Your task to perform on an android device: What's the weather today? Image 0: 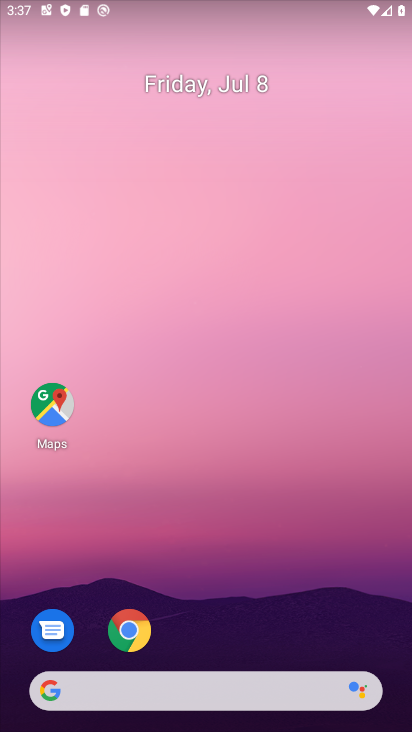
Step 0: click (177, 682)
Your task to perform on an android device: What's the weather today? Image 1: 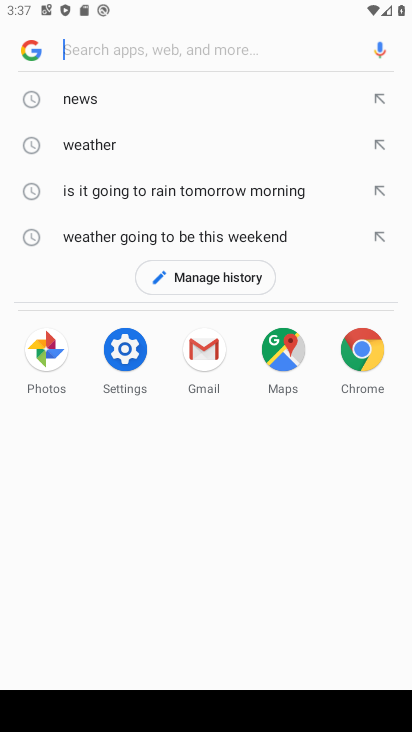
Step 1: type "what's the weather today?"
Your task to perform on an android device: What's the weather today? Image 2: 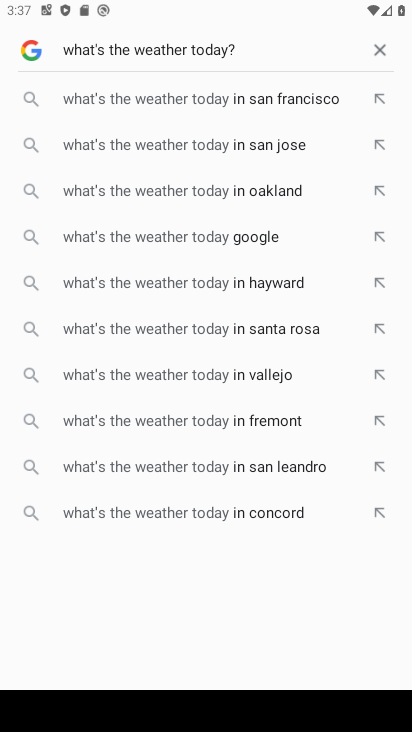
Step 2: click (189, 235)
Your task to perform on an android device: What's the weather today? Image 3: 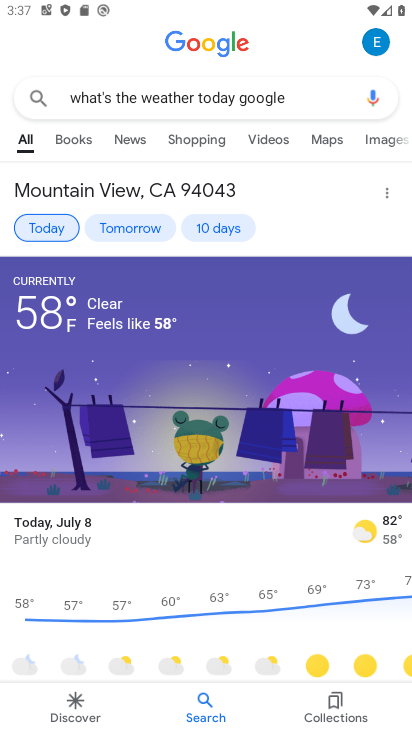
Step 3: task complete